Your task to perform on an android device: uninstall "Upside-Cash back on gas & food" Image 0: 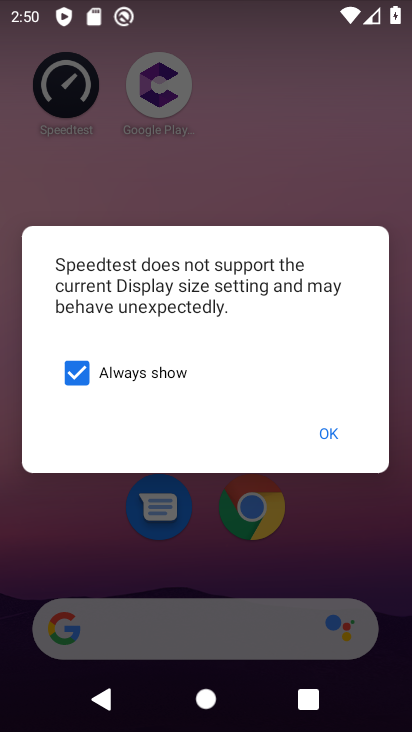
Step 0: press home button
Your task to perform on an android device: uninstall "Upside-Cash back on gas & food" Image 1: 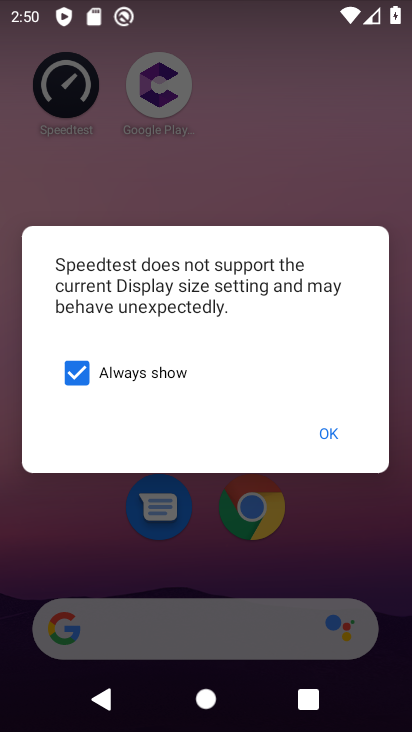
Step 1: click (334, 433)
Your task to perform on an android device: uninstall "Upside-Cash back on gas & food" Image 2: 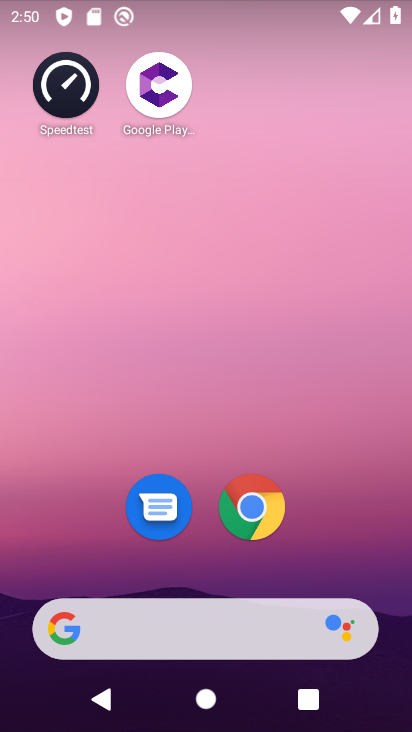
Step 2: drag from (193, 632) to (241, 88)
Your task to perform on an android device: uninstall "Upside-Cash back on gas & food" Image 3: 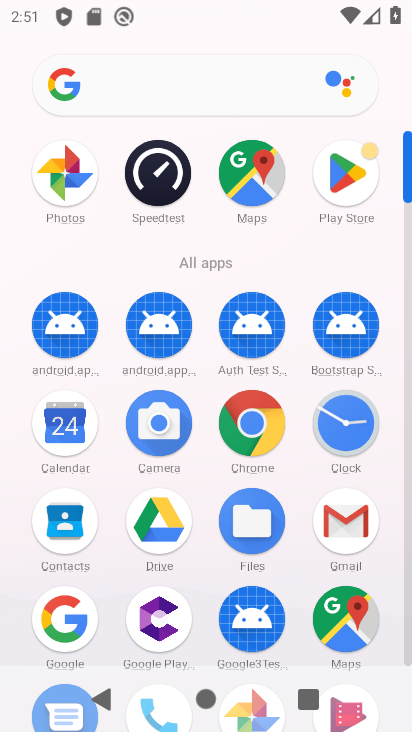
Step 3: click (346, 180)
Your task to perform on an android device: uninstall "Upside-Cash back on gas & food" Image 4: 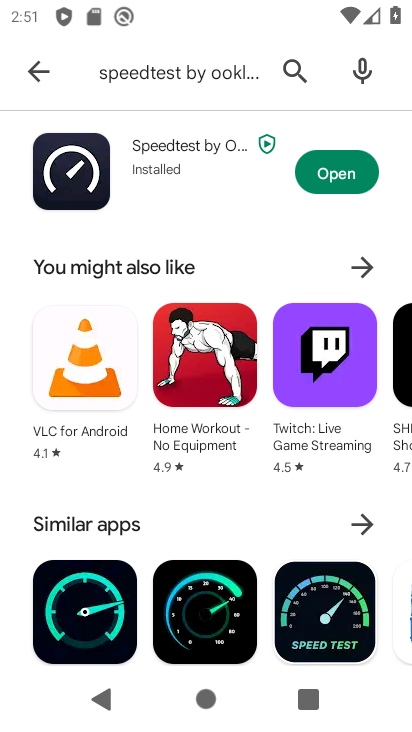
Step 4: press back button
Your task to perform on an android device: uninstall "Upside-Cash back on gas & food" Image 5: 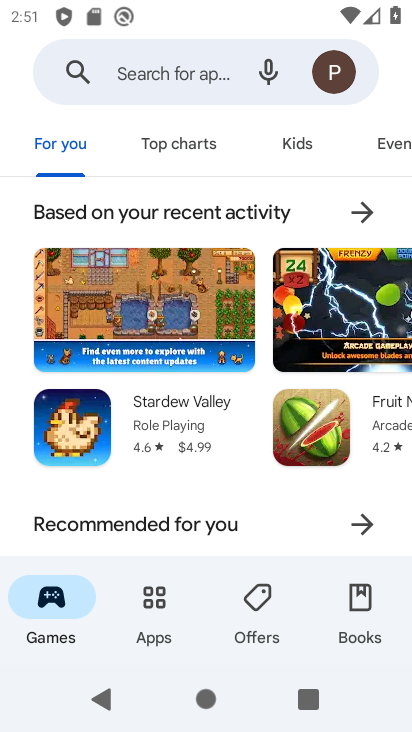
Step 5: click (215, 81)
Your task to perform on an android device: uninstall "Upside-Cash back on gas & food" Image 6: 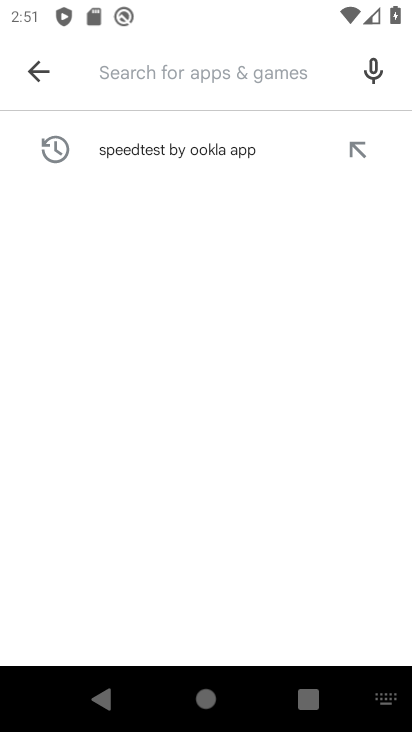
Step 6: type "Upside-Cash back on gas & food"
Your task to perform on an android device: uninstall "Upside-Cash back on gas & food" Image 7: 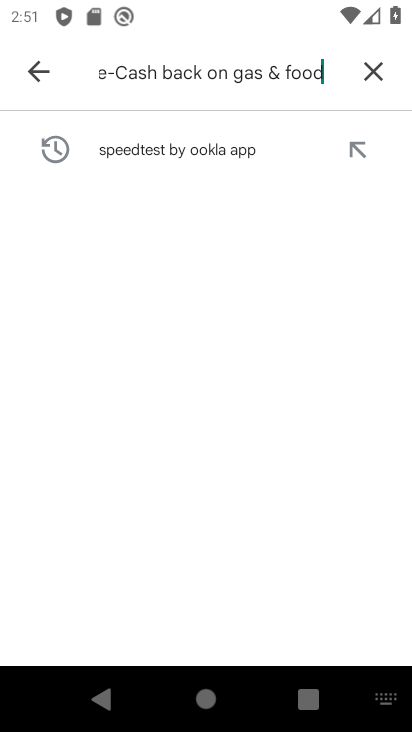
Step 7: type ""
Your task to perform on an android device: uninstall "Upside-Cash back on gas & food" Image 8: 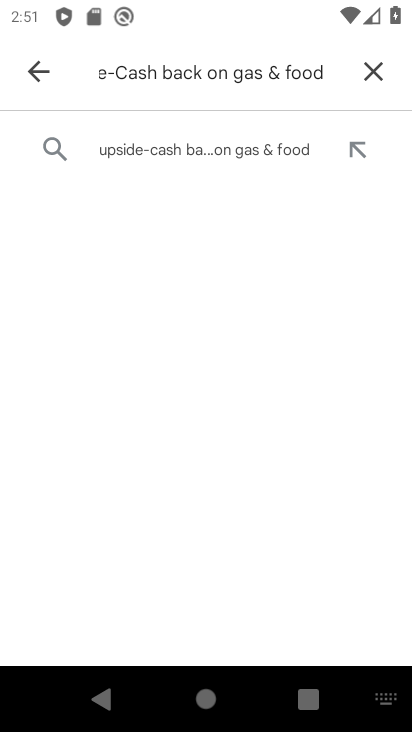
Step 8: click (249, 144)
Your task to perform on an android device: uninstall "Upside-Cash back on gas & food" Image 9: 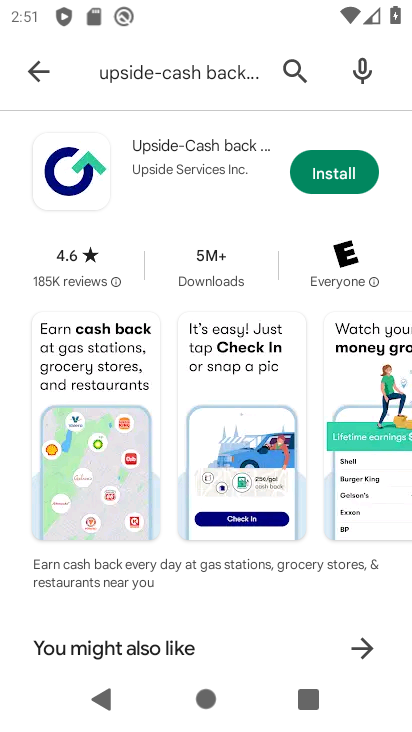
Step 9: task complete